Your task to perform on an android device: toggle translation in the chrome app Image 0: 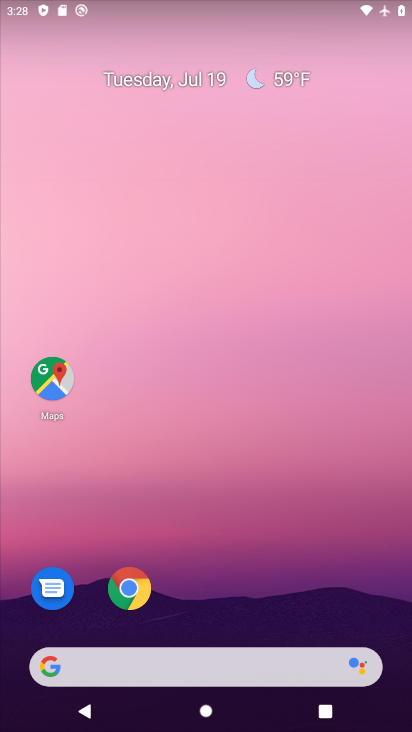
Step 0: press home button
Your task to perform on an android device: toggle translation in the chrome app Image 1: 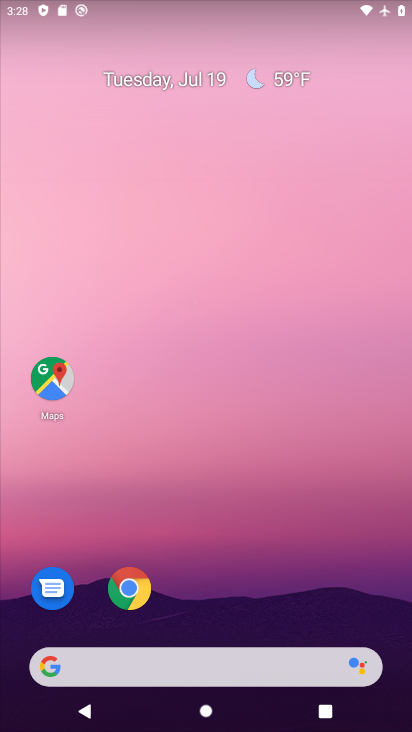
Step 1: drag from (239, 631) to (228, 216)
Your task to perform on an android device: toggle translation in the chrome app Image 2: 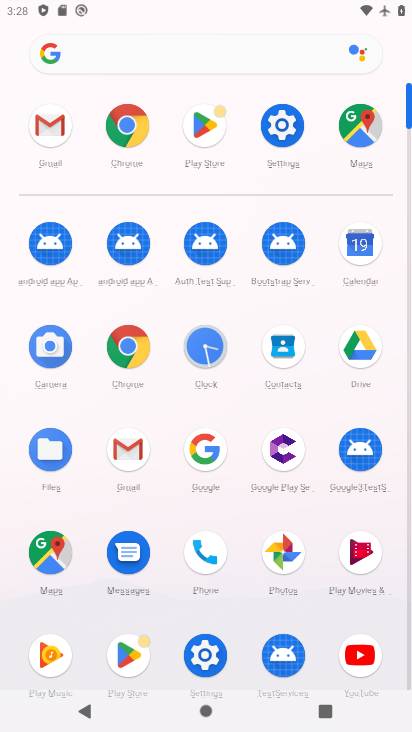
Step 2: click (136, 132)
Your task to perform on an android device: toggle translation in the chrome app Image 3: 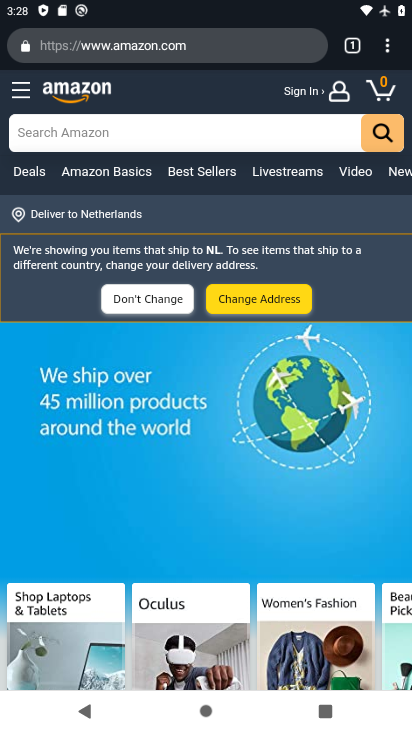
Step 3: drag from (388, 58) to (202, 509)
Your task to perform on an android device: toggle translation in the chrome app Image 4: 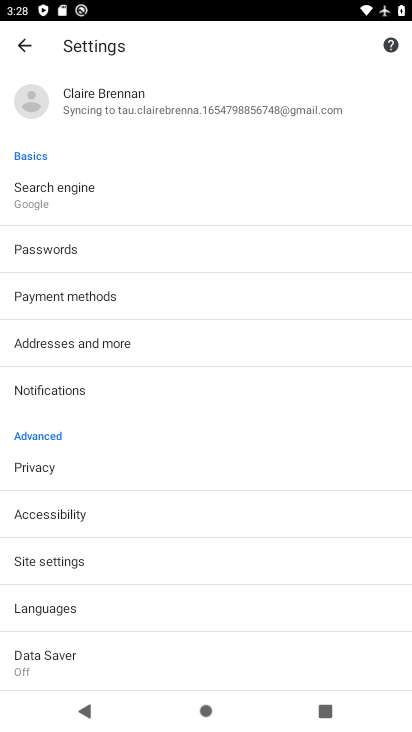
Step 4: click (38, 609)
Your task to perform on an android device: toggle translation in the chrome app Image 5: 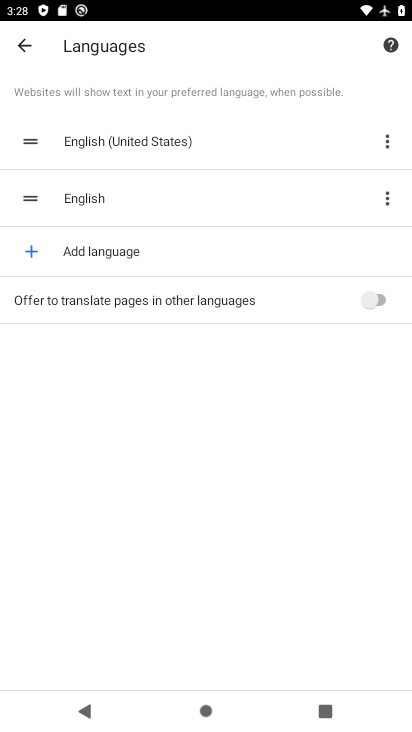
Step 5: click (376, 298)
Your task to perform on an android device: toggle translation in the chrome app Image 6: 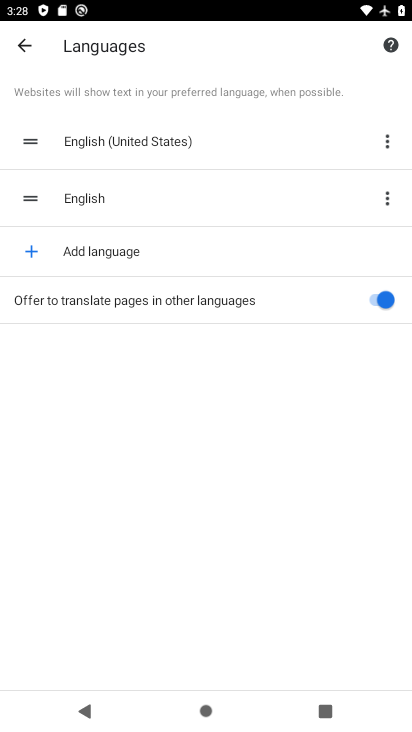
Step 6: task complete